Your task to perform on an android device: search for starred emails in the gmail app Image 0: 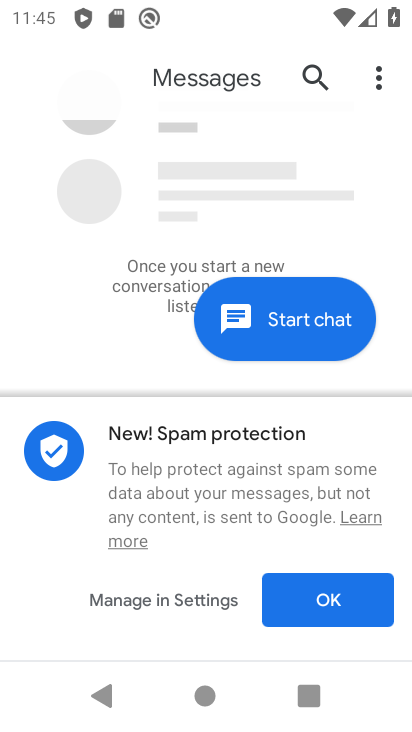
Step 0: press home button
Your task to perform on an android device: search for starred emails in the gmail app Image 1: 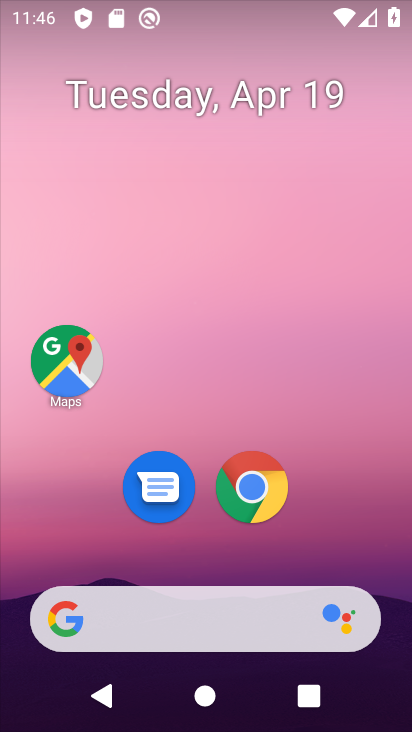
Step 1: drag from (354, 505) to (245, 30)
Your task to perform on an android device: search for starred emails in the gmail app Image 2: 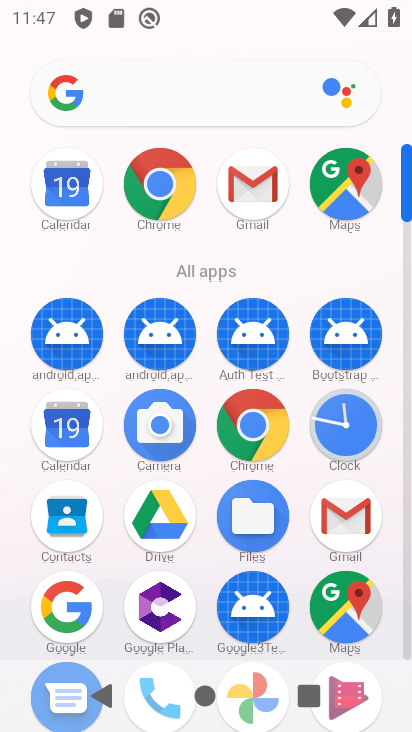
Step 2: click (345, 525)
Your task to perform on an android device: search for starred emails in the gmail app Image 3: 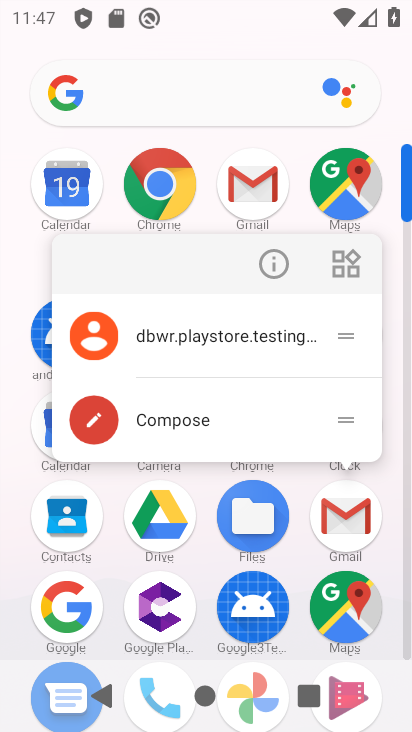
Step 3: click (344, 512)
Your task to perform on an android device: search for starred emails in the gmail app Image 4: 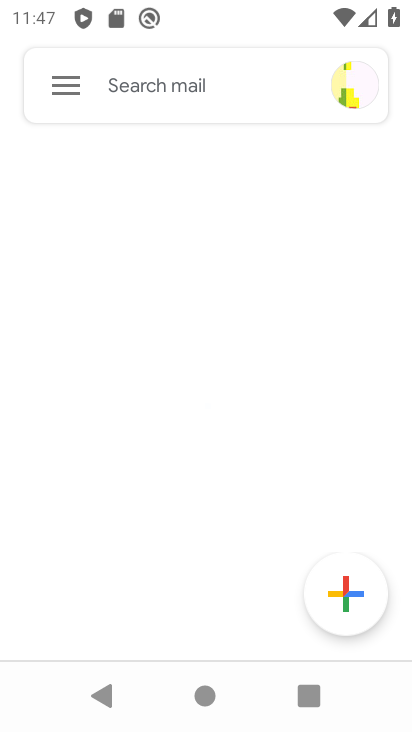
Step 4: click (53, 84)
Your task to perform on an android device: search for starred emails in the gmail app Image 5: 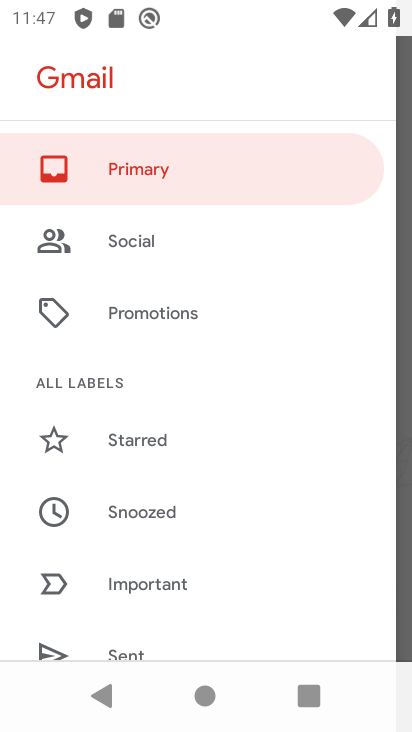
Step 5: click (208, 451)
Your task to perform on an android device: search for starred emails in the gmail app Image 6: 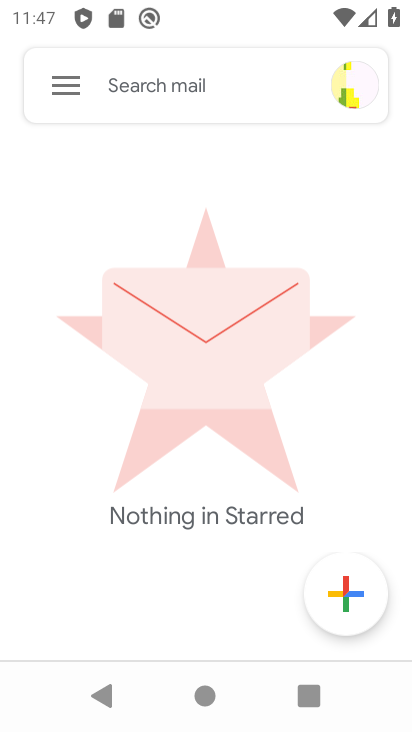
Step 6: task complete